Your task to perform on an android device: Open Android settings Image 0: 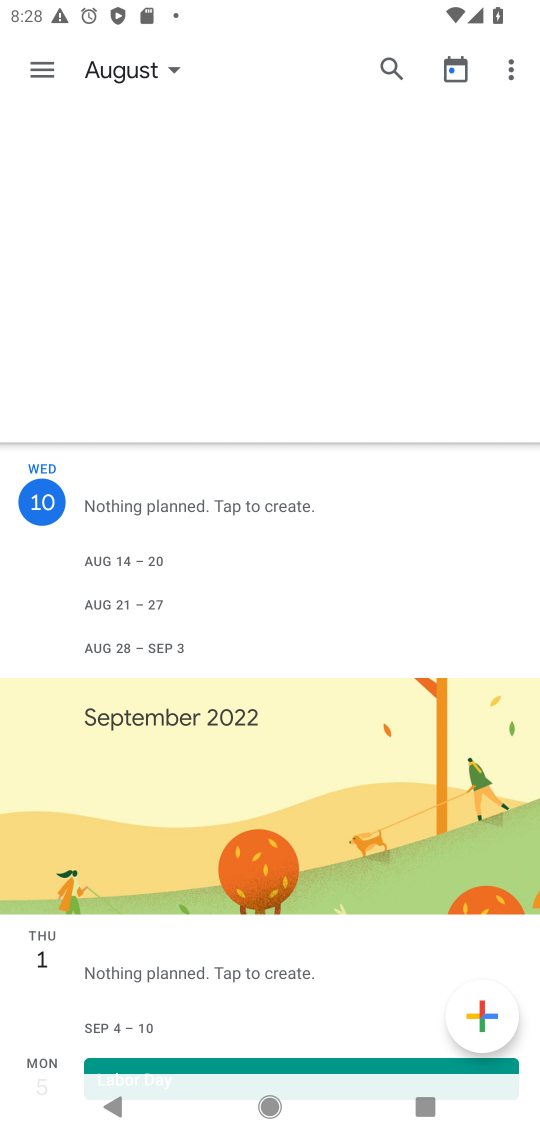
Step 0: press home button
Your task to perform on an android device: Open Android settings Image 1: 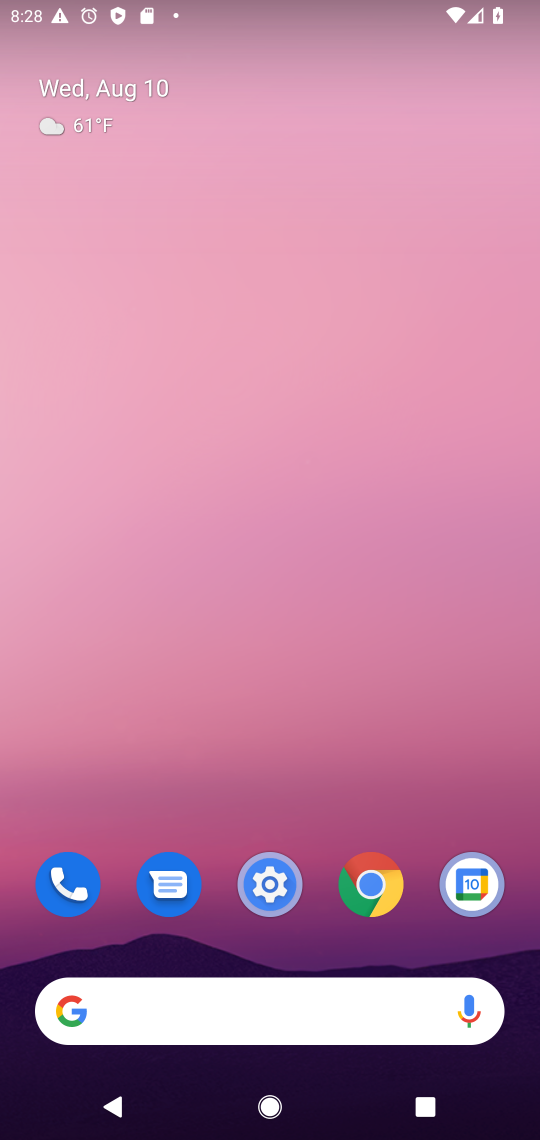
Step 1: click (256, 882)
Your task to perform on an android device: Open Android settings Image 2: 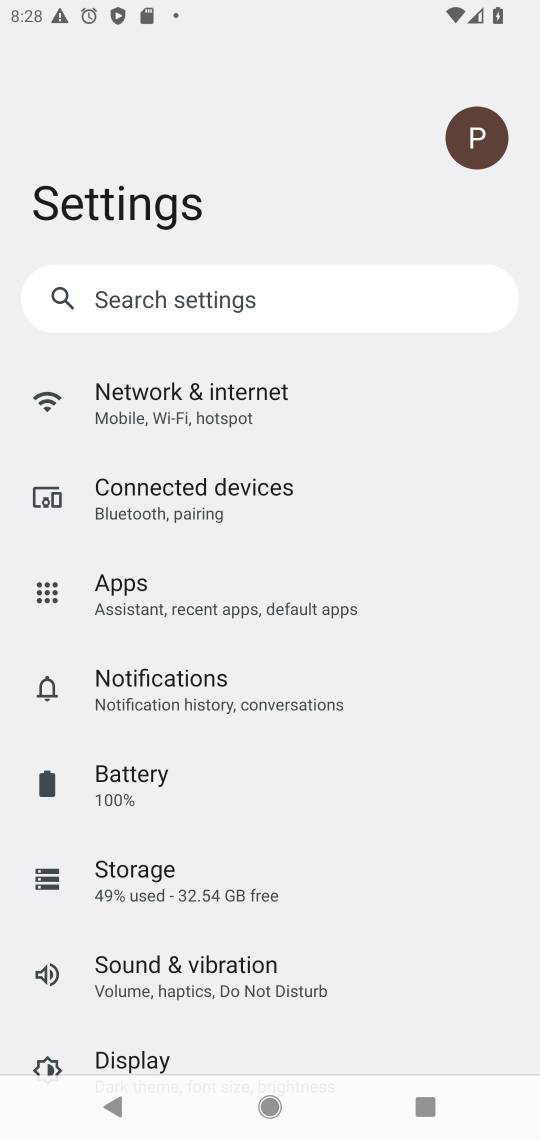
Step 2: drag from (412, 1030) to (480, 250)
Your task to perform on an android device: Open Android settings Image 3: 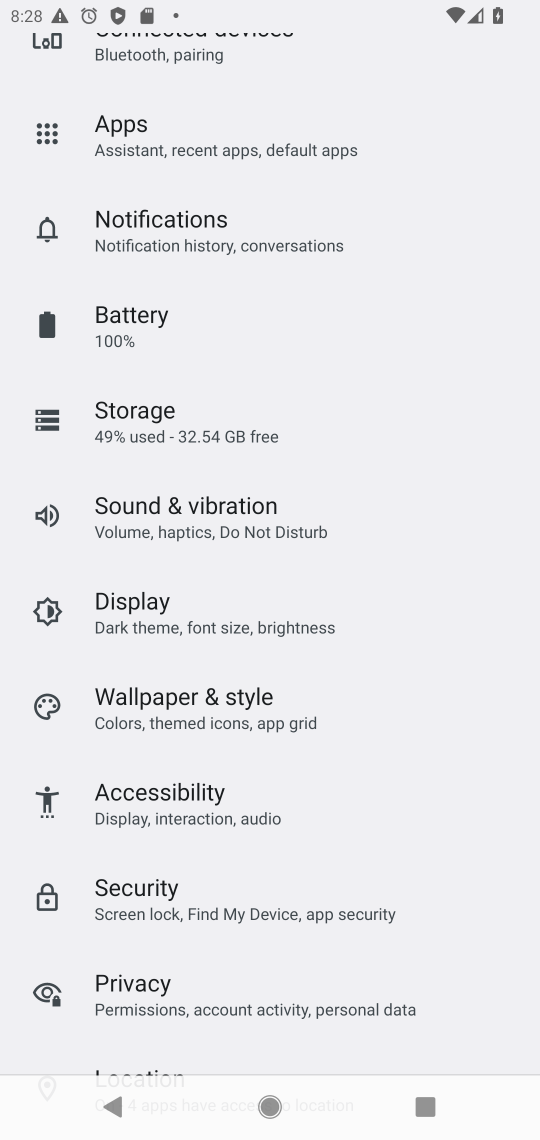
Step 3: drag from (479, 1029) to (513, 352)
Your task to perform on an android device: Open Android settings Image 4: 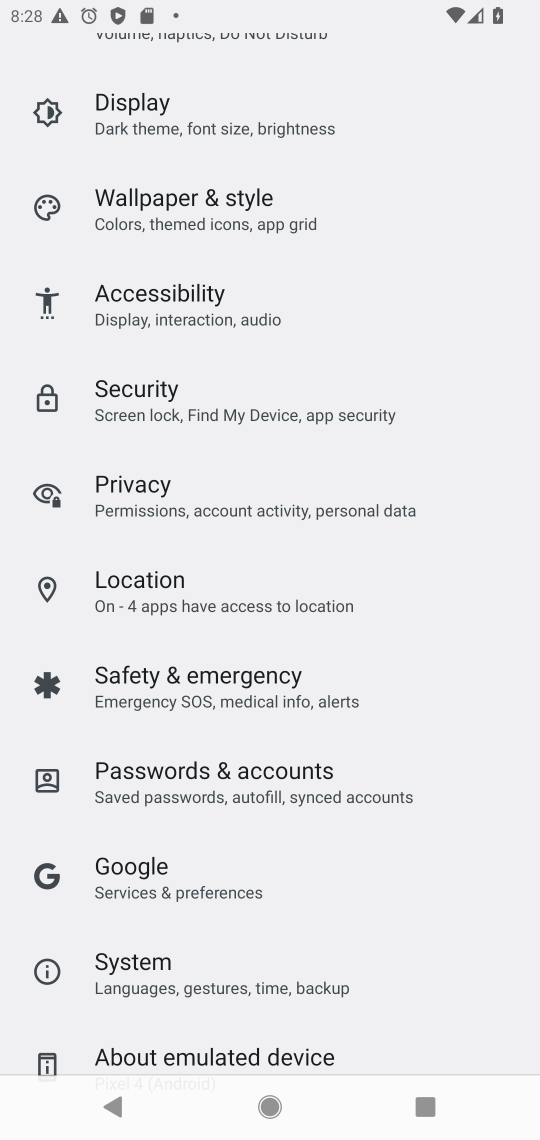
Step 4: drag from (444, 1032) to (332, 417)
Your task to perform on an android device: Open Android settings Image 5: 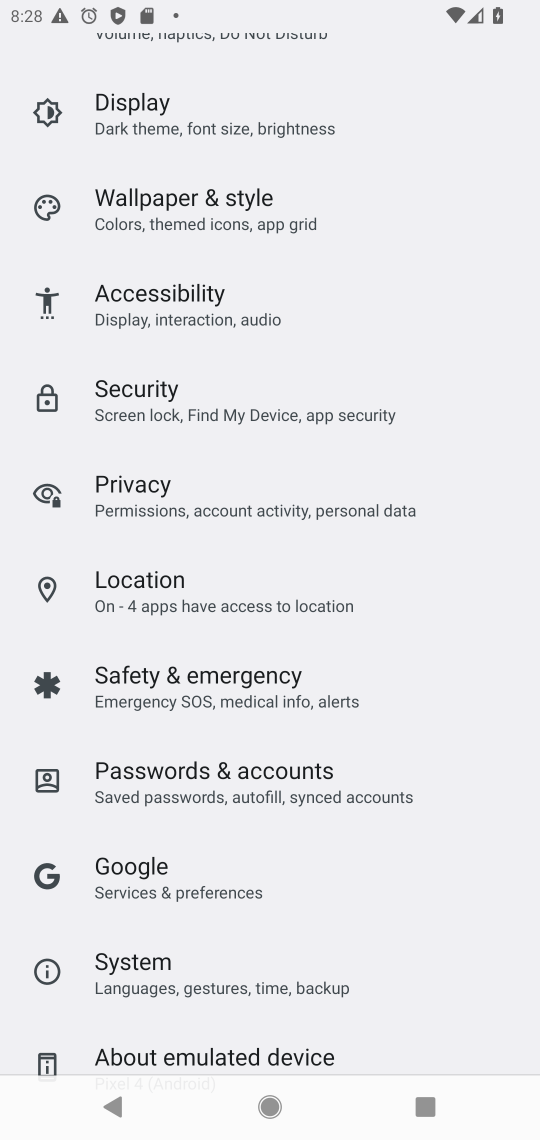
Step 5: drag from (447, 1032) to (521, 318)
Your task to perform on an android device: Open Android settings Image 6: 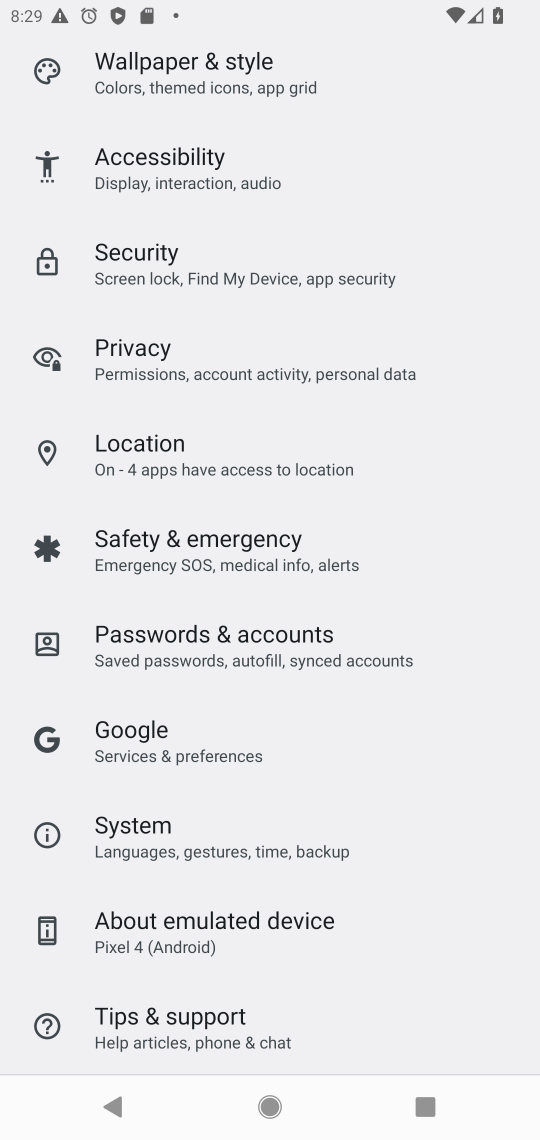
Step 6: click (179, 939)
Your task to perform on an android device: Open Android settings Image 7: 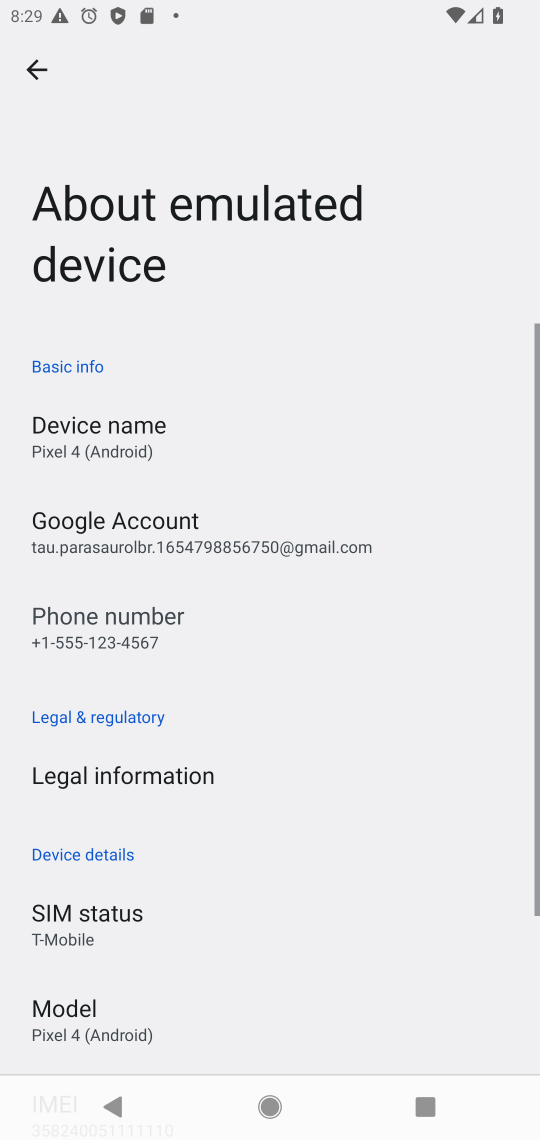
Step 7: drag from (287, 1001) to (263, 272)
Your task to perform on an android device: Open Android settings Image 8: 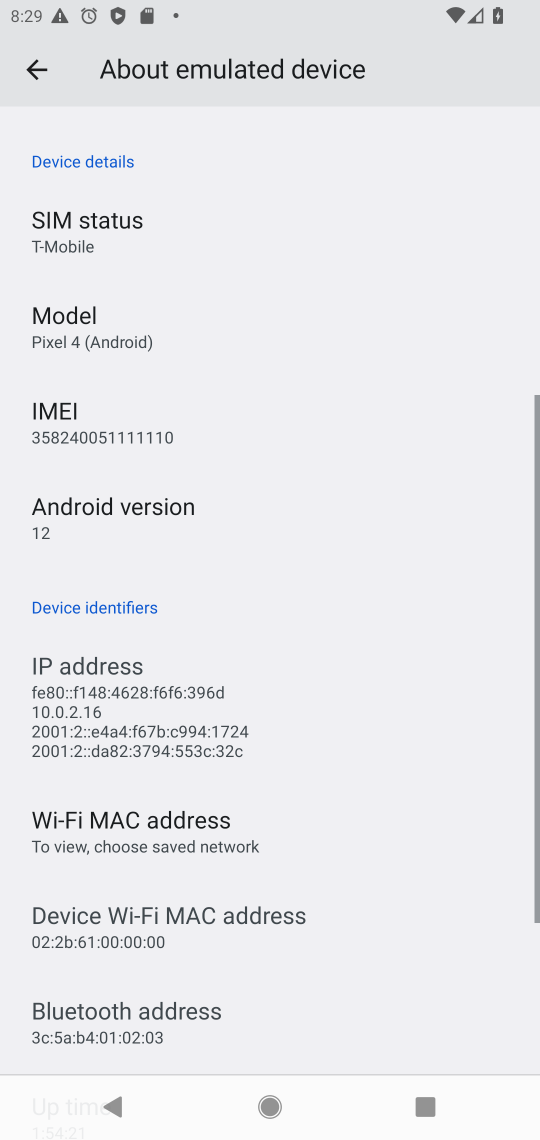
Step 8: click (136, 535)
Your task to perform on an android device: Open Android settings Image 9: 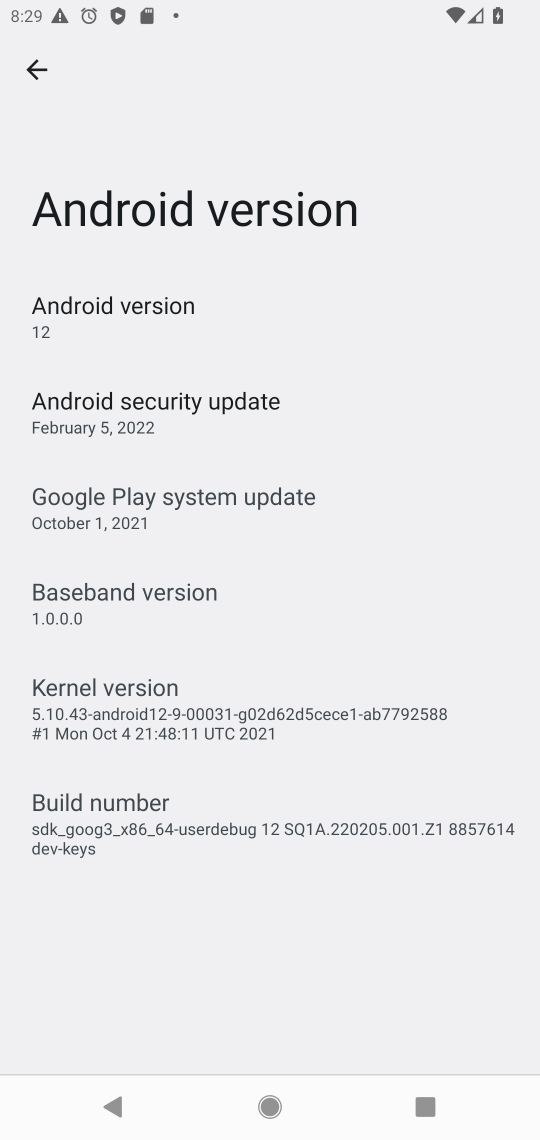
Step 9: task complete